Your task to perform on an android device: turn on sleep mode Image 0: 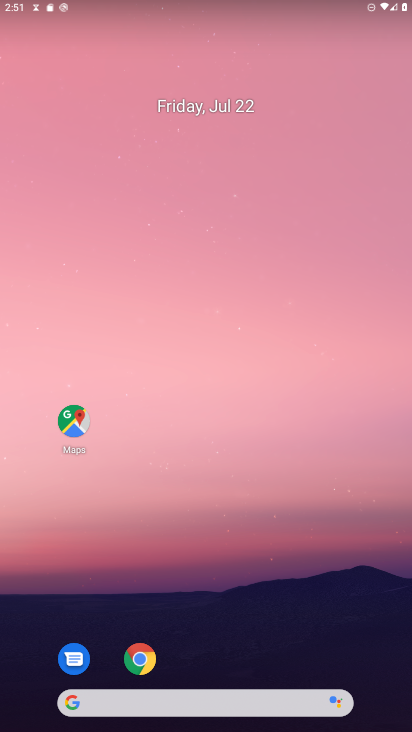
Step 0: drag from (198, 616) to (172, 4)
Your task to perform on an android device: turn on sleep mode Image 1: 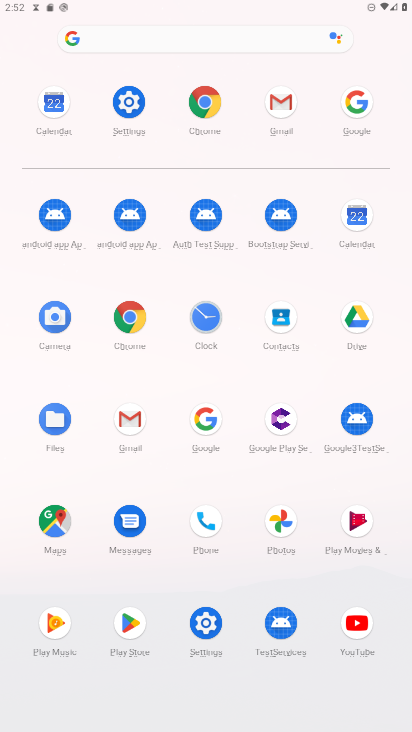
Step 1: click (128, 101)
Your task to perform on an android device: turn on sleep mode Image 2: 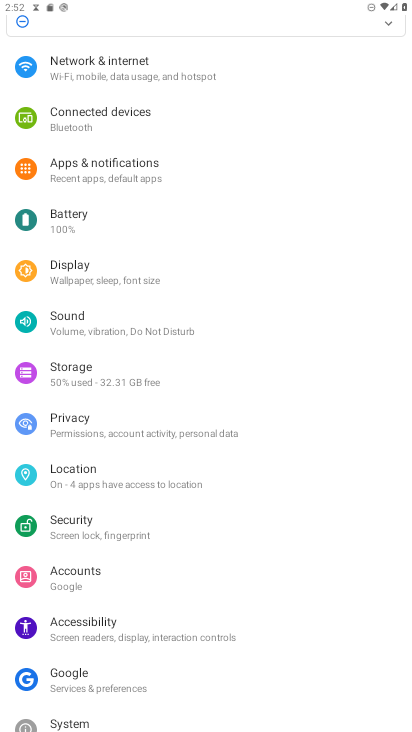
Step 2: click (97, 272)
Your task to perform on an android device: turn on sleep mode Image 3: 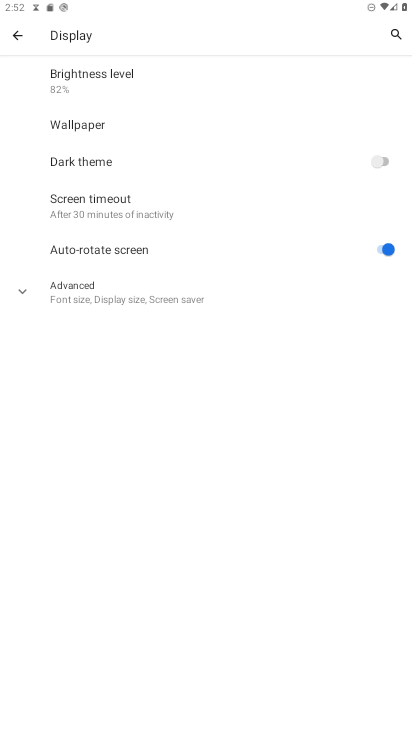
Step 3: click (74, 210)
Your task to perform on an android device: turn on sleep mode Image 4: 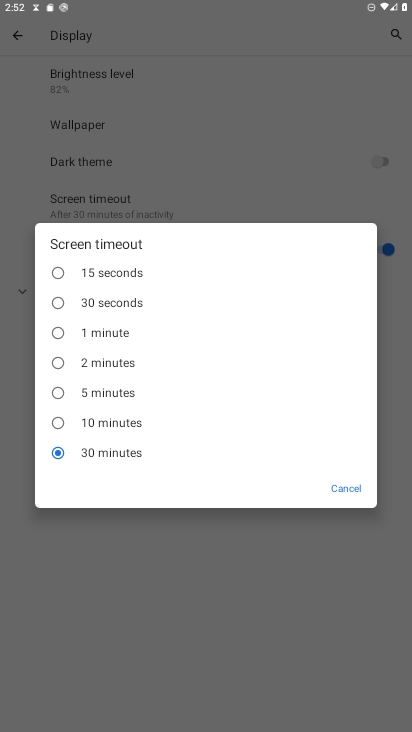
Step 4: task complete